Your task to perform on an android device: turn pop-ups on in chrome Image 0: 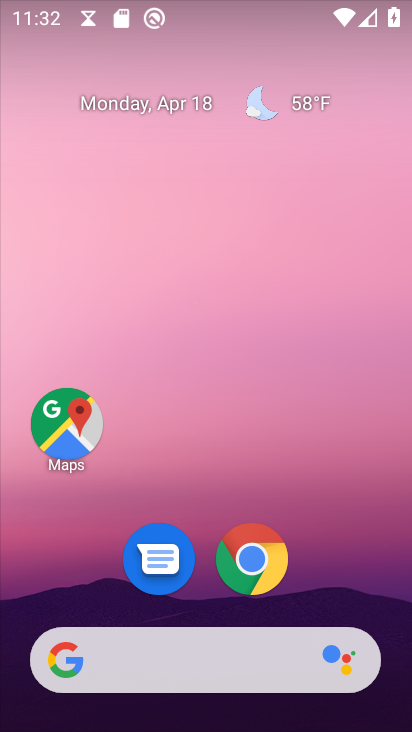
Step 0: click (268, 559)
Your task to perform on an android device: turn pop-ups on in chrome Image 1: 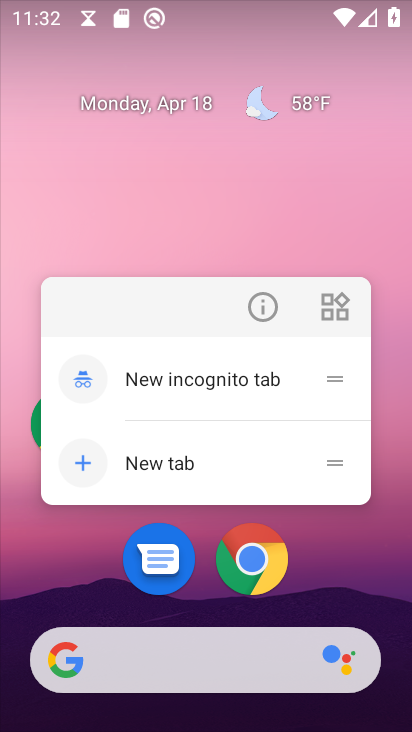
Step 1: click (252, 555)
Your task to perform on an android device: turn pop-ups on in chrome Image 2: 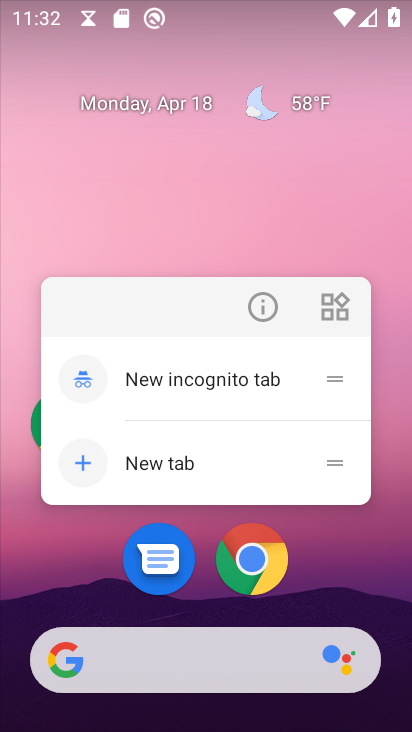
Step 2: click (255, 573)
Your task to perform on an android device: turn pop-ups on in chrome Image 3: 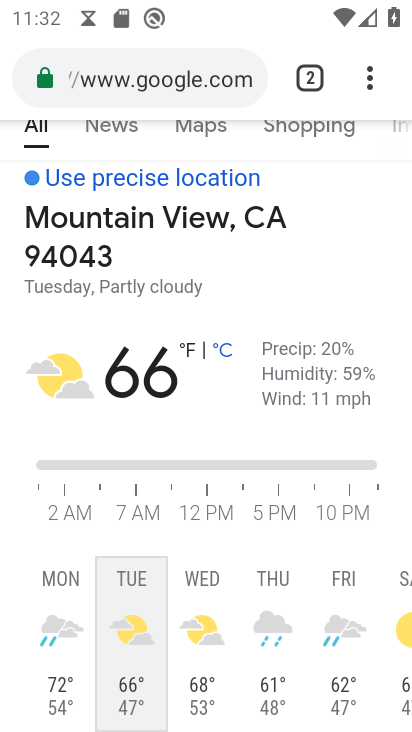
Step 3: click (370, 82)
Your task to perform on an android device: turn pop-ups on in chrome Image 4: 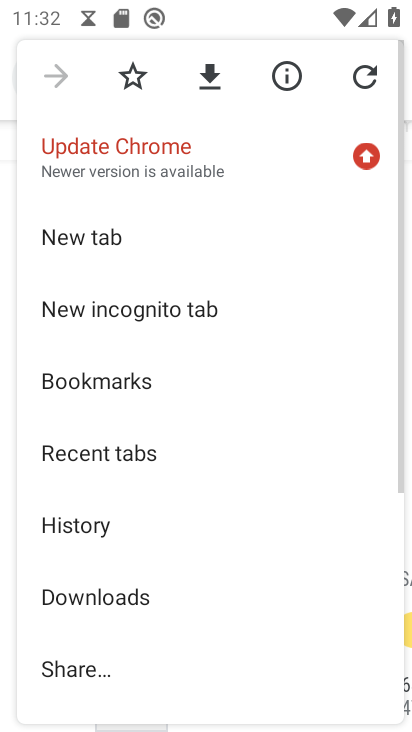
Step 4: drag from (88, 642) to (112, 216)
Your task to perform on an android device: turn pop-ups on in chrome Image 5: 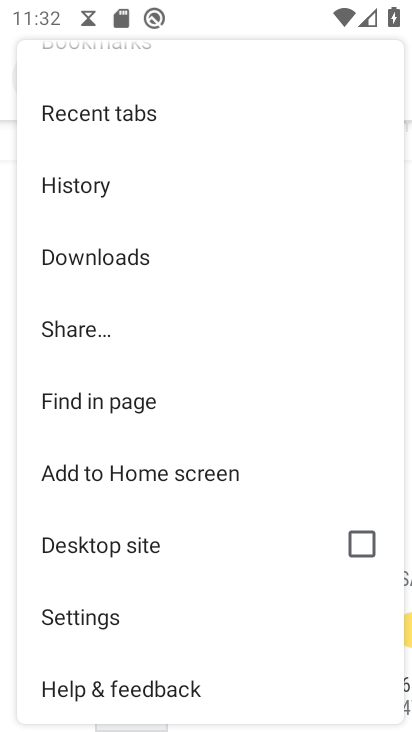
Step 5: click (74, 623)
Your task to perform on an android device: turn pop-ups on in chrome Image 6: 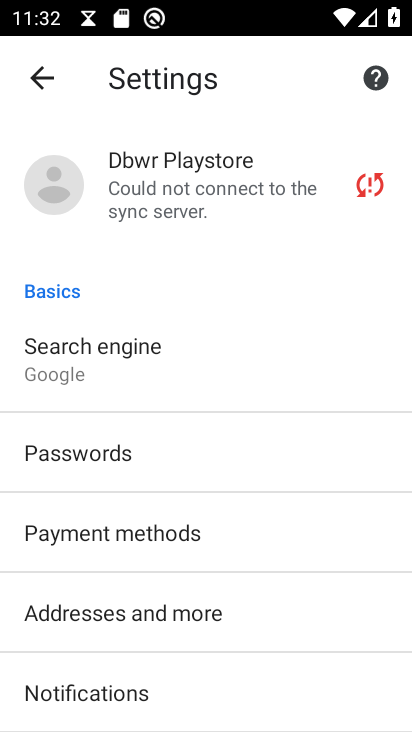
Step 6: drag from (86, 610) to (111, 189)
Your task to perform on an android device: turn pop-ups on in chrome Image 7: 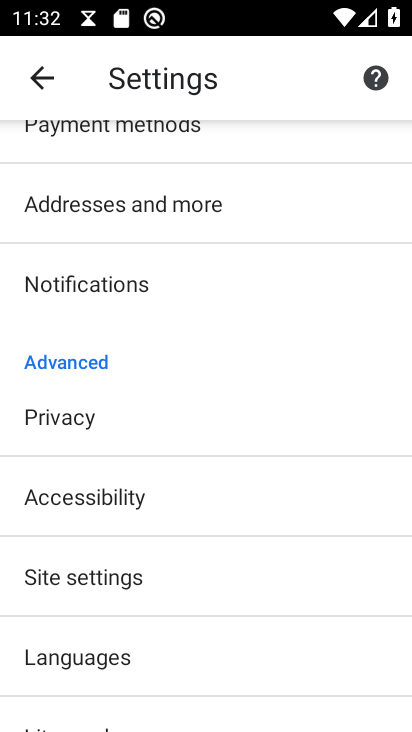
Step 7: drag from (90, 683) to (106, 498)
Your task to perform on an android device: turn pop-ups on in chrome Image 8: 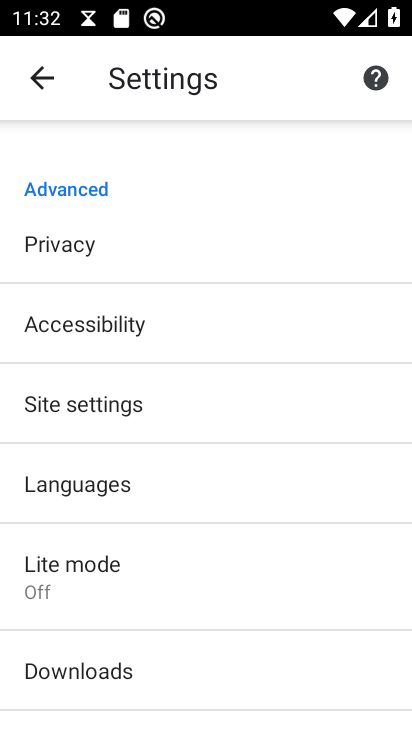
Step 8: click (88, 406)
Your task to perform on an android device: turn pop-ups on in chrome Image 9: 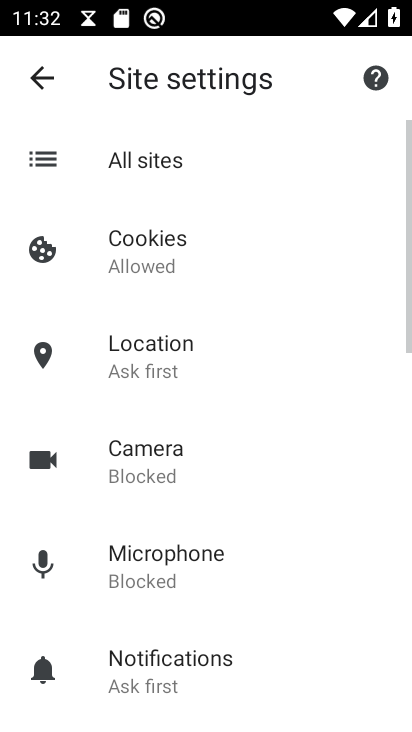
Step 9: drag from (191, 621) to (197, 305)
Your task to perform on an android device: turn pop-ups on in chrome Image 10: 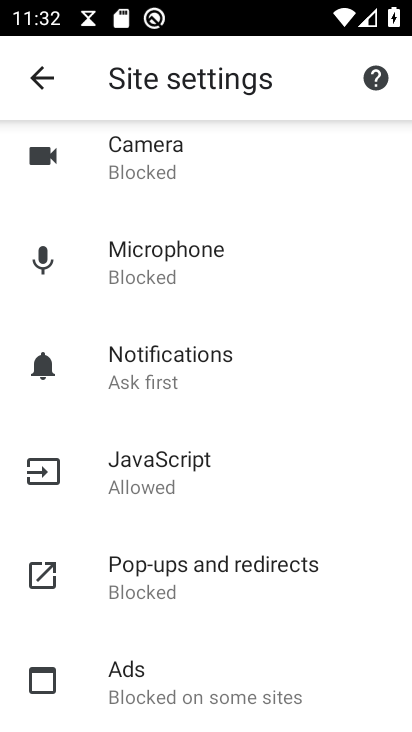
Step 10: click (209, 562)
Your task to perform on an android device: turn pop-ups on in chrome Image 11: 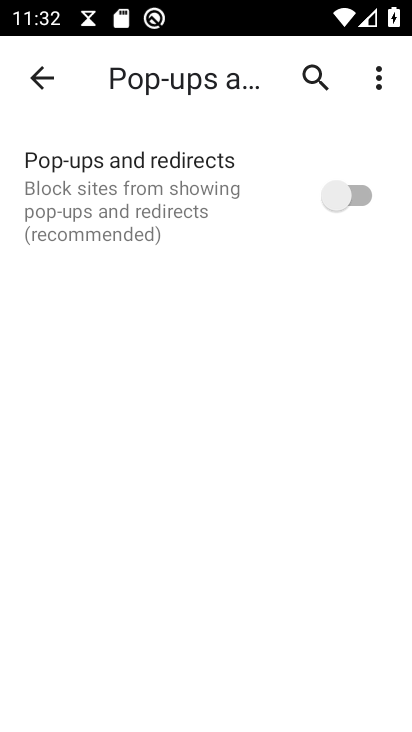
Step 11: click (350, 198)
Your task to perform on an android device: turn pop-ups on in chrome Image 12: 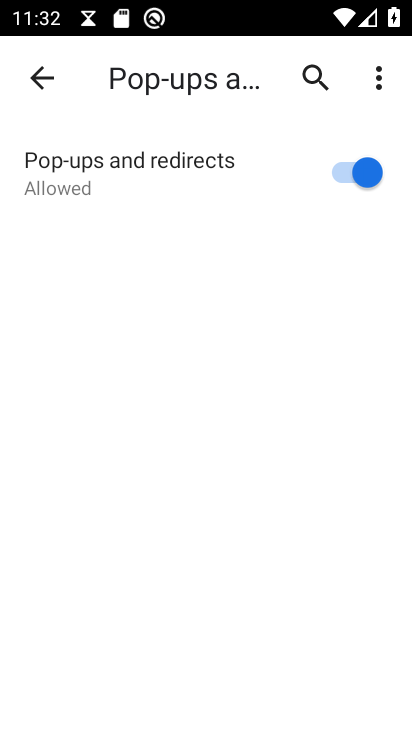
Step 12: task complete